Your task to perform on an android device: allow notifications from all sites in the chrome app Image 0: 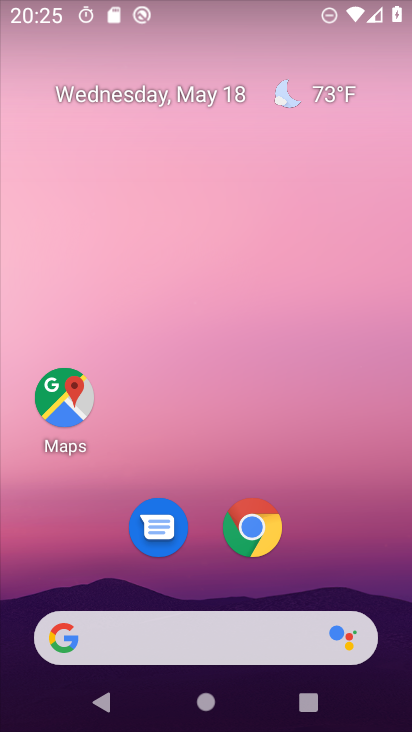
Step 0: click (233, 530)
Your task to perform on an android device: allow notifications from all sites in the chrome app Image 1: 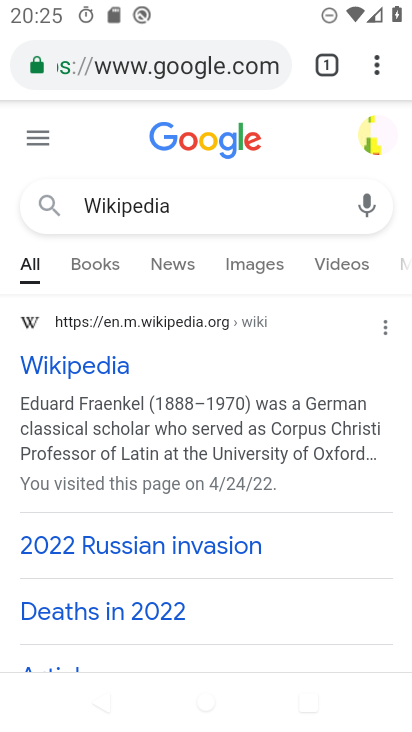
Step 1: click (375, 63)
Your task to perform on an android device: allow notifications from all sites in the chrome app Image 2: 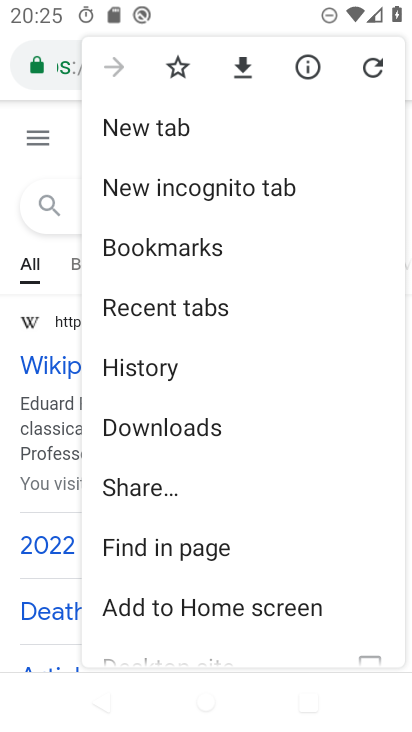
Step 2: drag from (282, 558) to (260, 211)
Your task to perform on an android device: allow notifications from all sites in the chrome app Image 3: 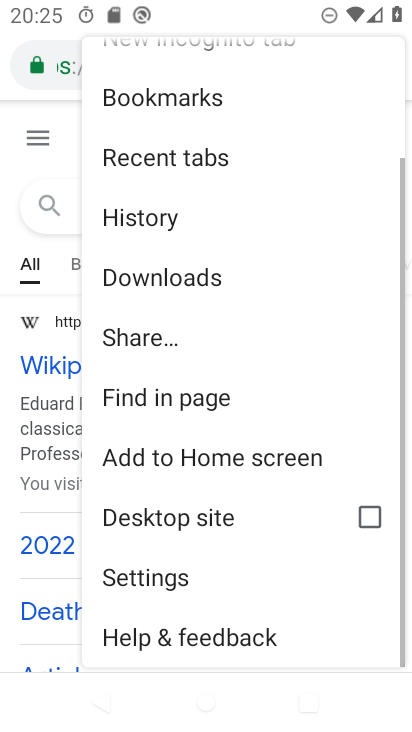
Step 3: click (150, 571)
Your task to perform on an android device: allow notifications from all sites in the chrome app Image 4: 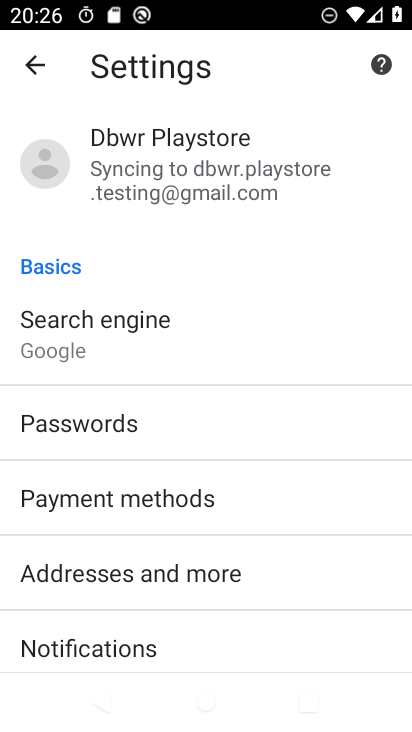
Step 4: drag from (252, 649) to (255, 218)
Your task to perform on an android device: allow notifications from all sites in the chrome app Image 5: 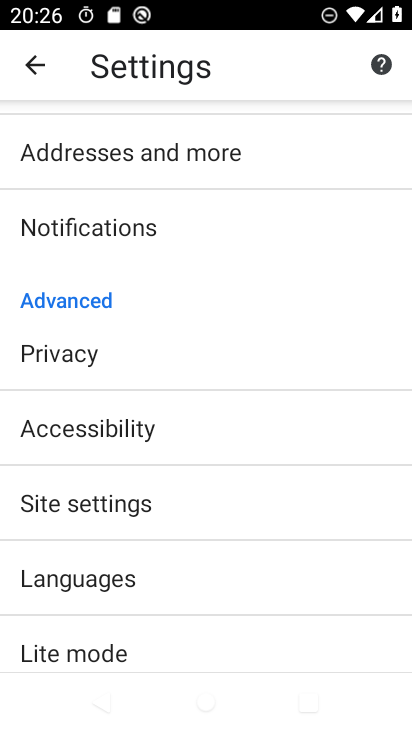
Step 5: drag from (283, 645) to (220, 237)
Your task to perform on an android device: allow notifications from all sites in the chrome app Image 6: 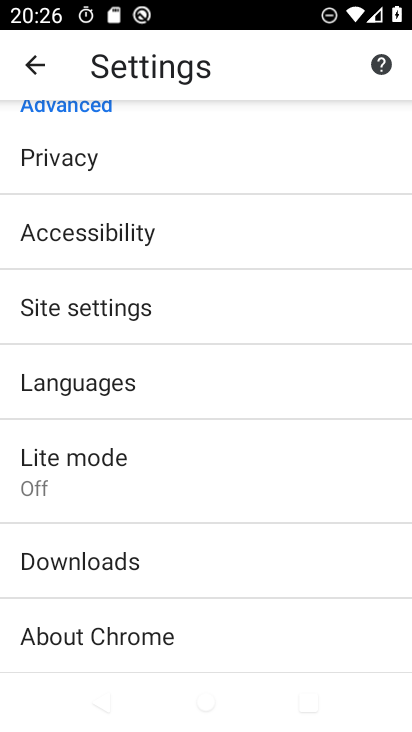
Step 6: click (85, 303)
Your task to perform on an android device: allow notifications from all sites in the chrome app Image 7: 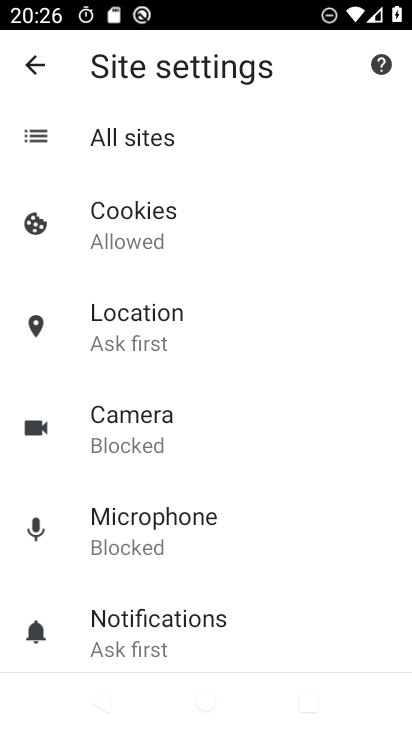
Step 7: click (123, 619)
Your task to perform on an android device: allow notifications from all sites in the chrome app Image 8: 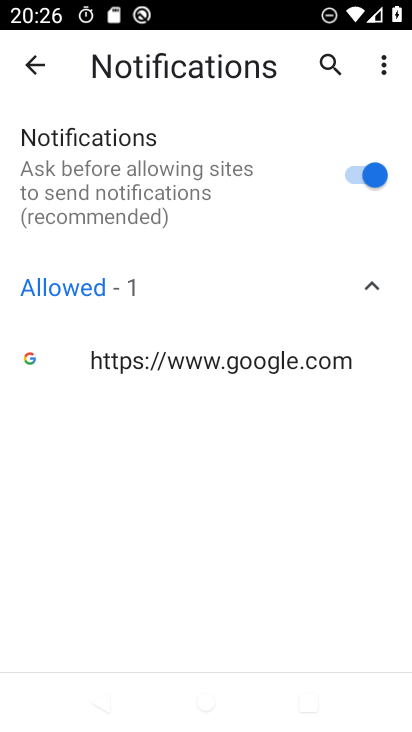
Step 8: task complete